Your task to perform on an android device: allow cookies in the chrome app Image 0: 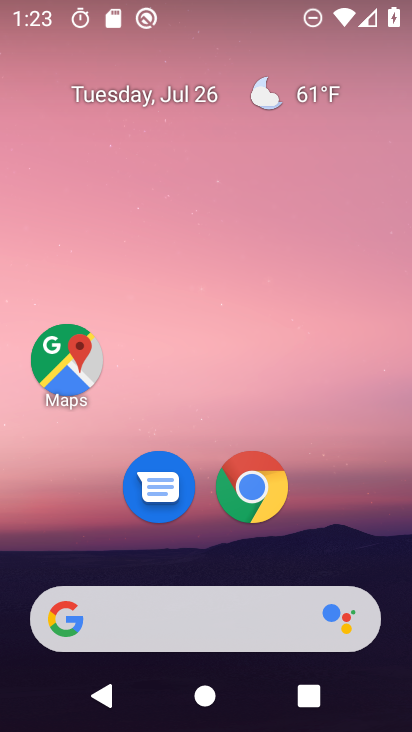
Step 0: click (246, 484)
Your task to perform on an android device: allow cookies in the chrome app Image 1: 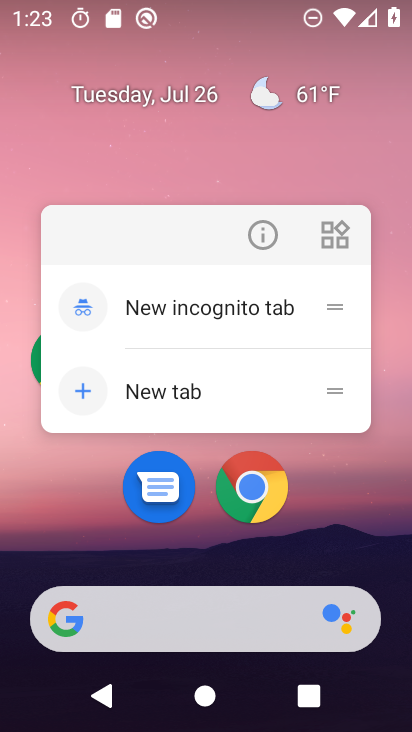
Step 1: click (261, 480)
Your task to perform on an android device: allow cookies in the chrome app Image 2: 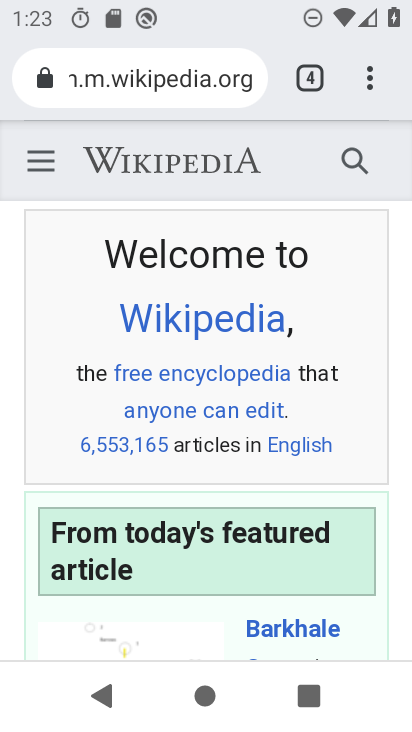
Step 2: drag from (367, 67) to (102, 544)
Your task to perform on an android device: allow cookies in the chrome app Image 3: 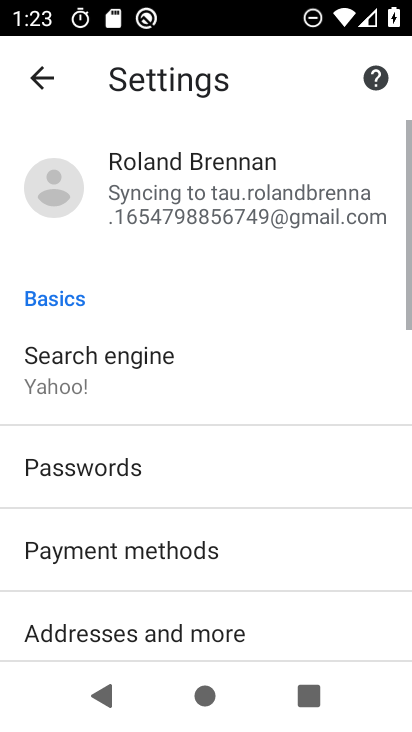
Step 3: drag from (107, 578) to (181, 141)
Your task to perform on an android device: allow cookies in the chrome app Image 4: 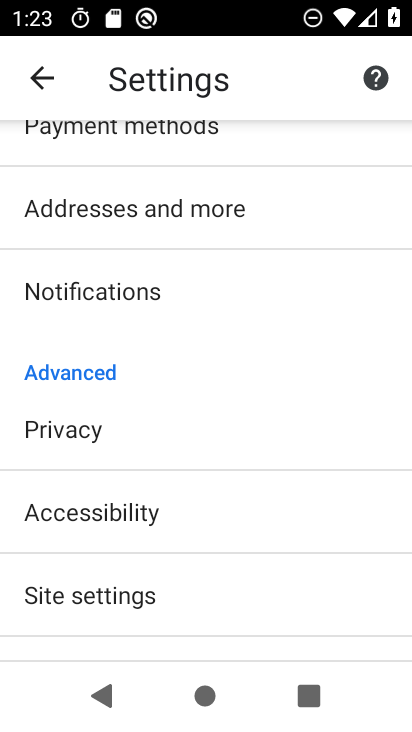
Step 4: click (65, 595)
Your task to perform on an android device: allow cookies in the chrome app Image 5: 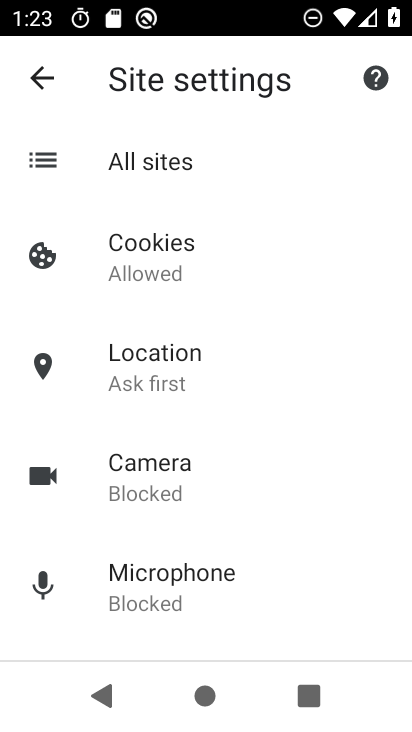
Step 5: click (209, 238)
Your task to perform on an android device: allow cookies in the chrome app Image 6: 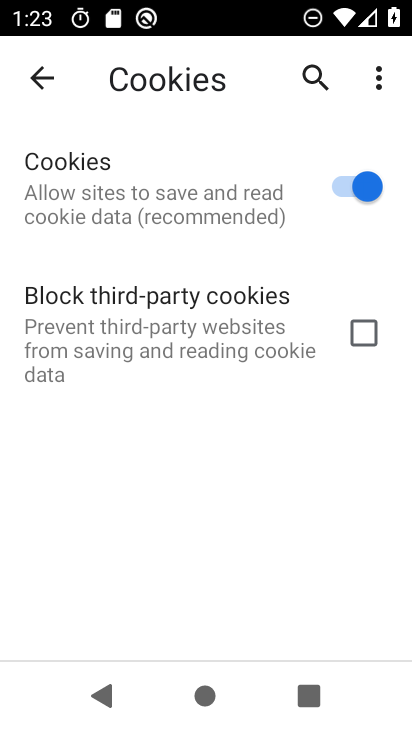
Step 6: task complete